Your task to perform on an android device: toggle location history Image 0: 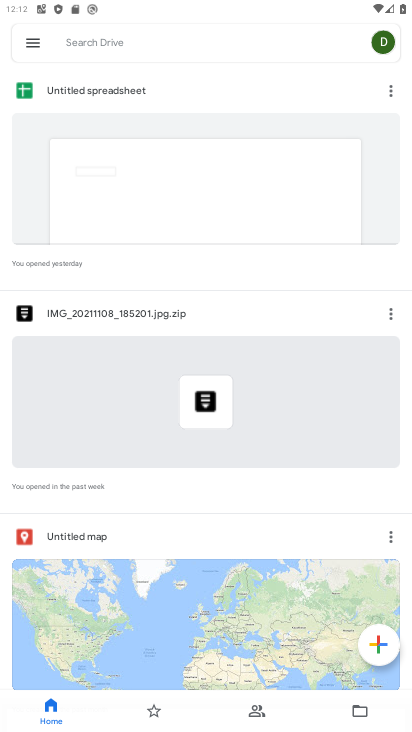
Step 0: press home button
Your task to perform on an android device: toggle location history Image 1: 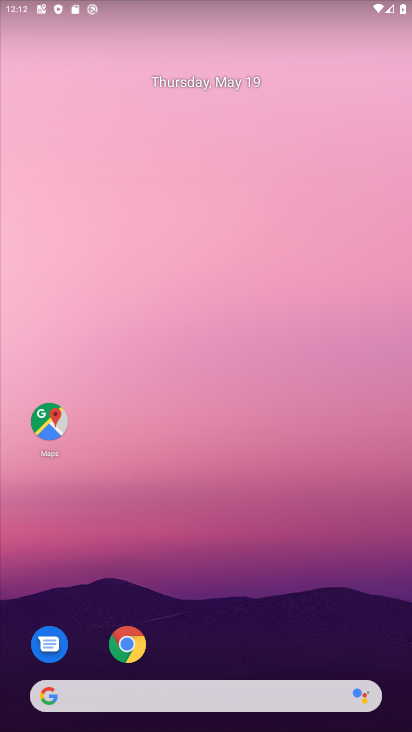
Step 1: drag from (311, 627) to (319, 264)
Your task to perform on an android device: toggle location history Image 2: 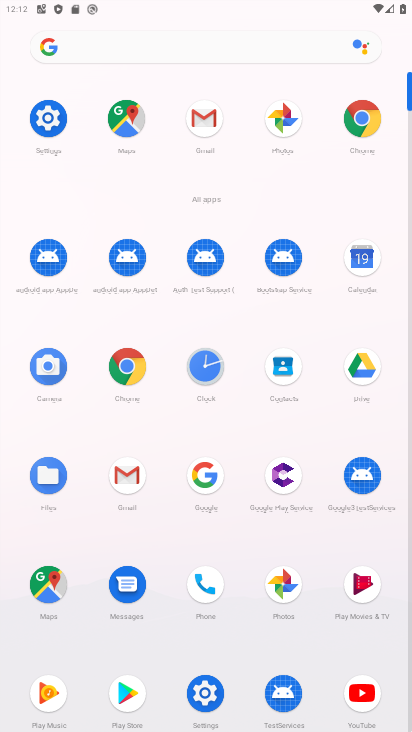
Step 2: click (204, 700)
Your task to perform on an android device: toggle location history Image 3: 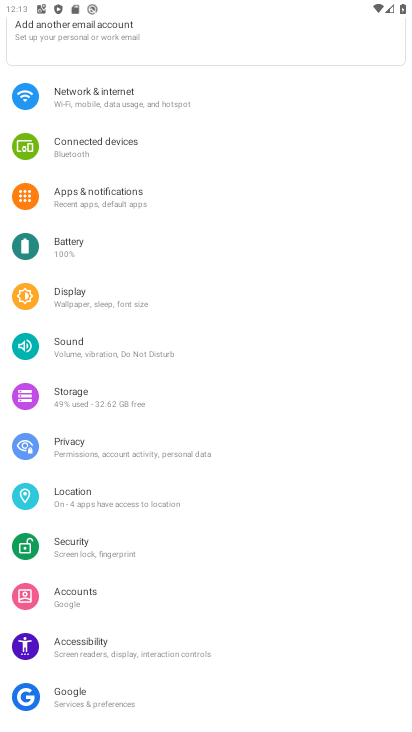
Step 3: click (84, 485)
Your task to perform on an android device: toggle location history Image 4: 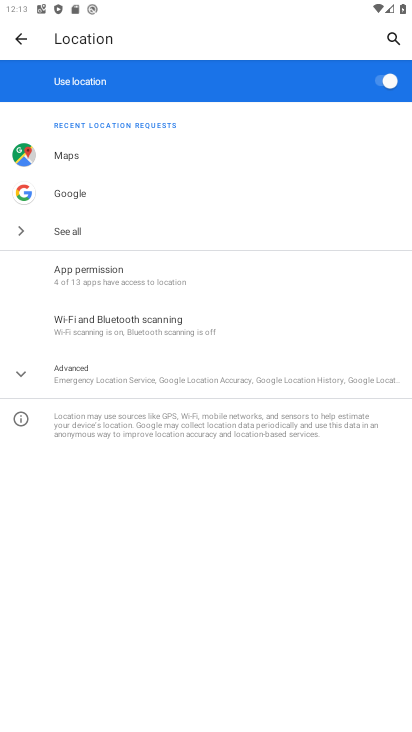
Step 4: click (139, 364)
Your task to perform on an android device: toggle location history Image 5: 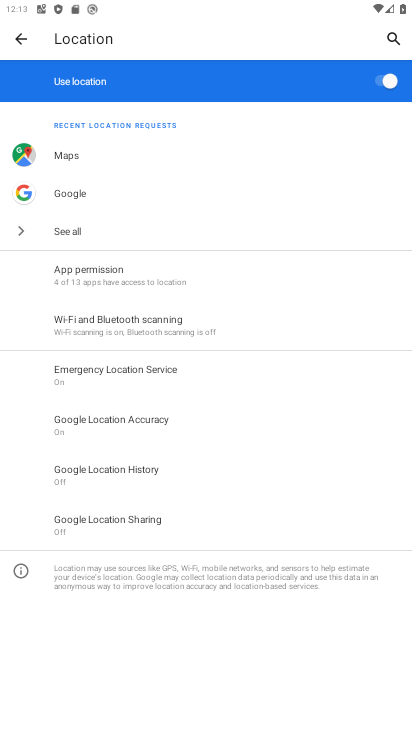
Step 5: click (134, 458)
Your task to perform on an android device: toggle location history Image 6: 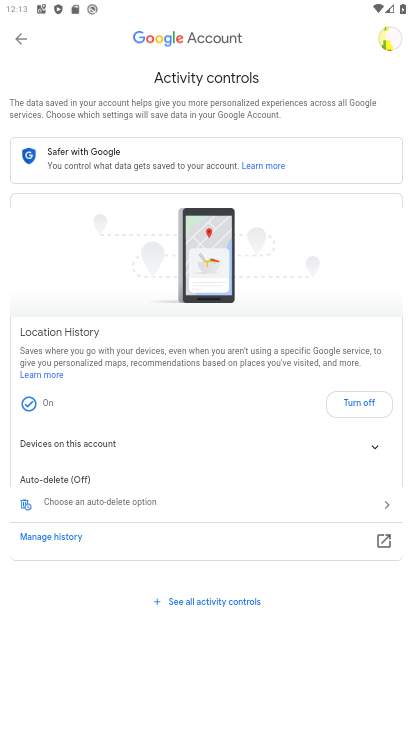
Step 6: click (360, 404)
Your task to perform on an android device: toggle location history Image 7: 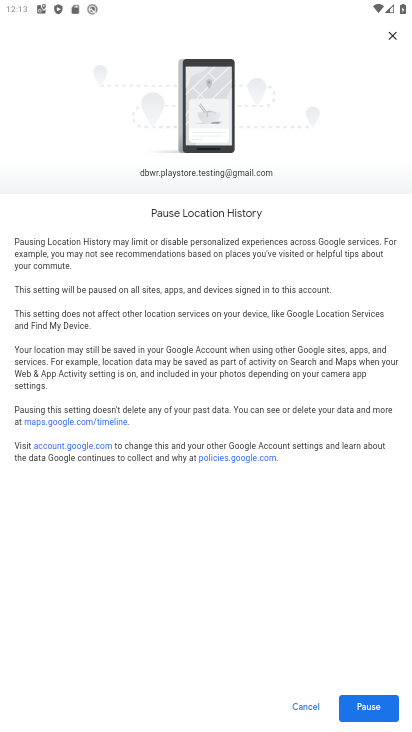
Step 7: click (352, 710)
Your task to perform on an android device: toggle location history Image 8: 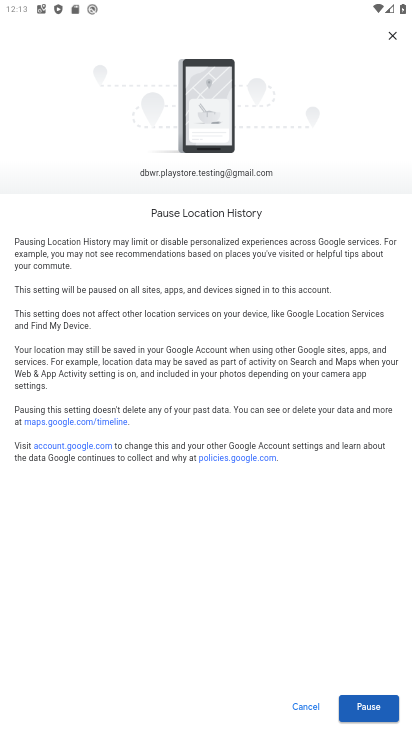
Step 8: click (351, 706)
Your task to perform on an android device: toggle location history Image 9: 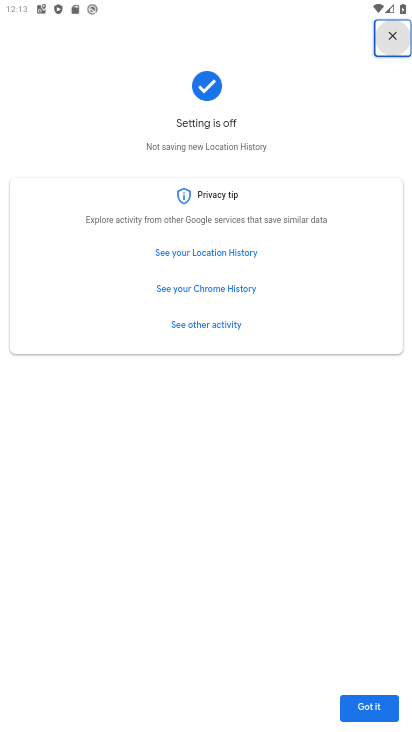
Step 9: task complete